Your task to perform on an android device: find which apps use the phone's location Image 0: 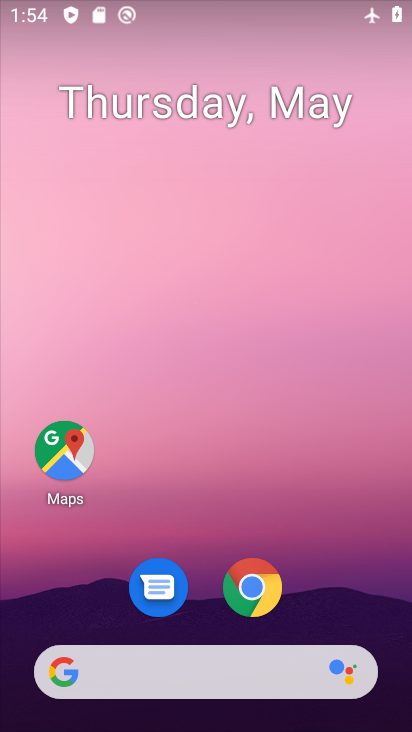
Step 0: drag from (305, 521) to (229, 83)
Your task to perform on an android device: find which apps use the phone's location Image 1: 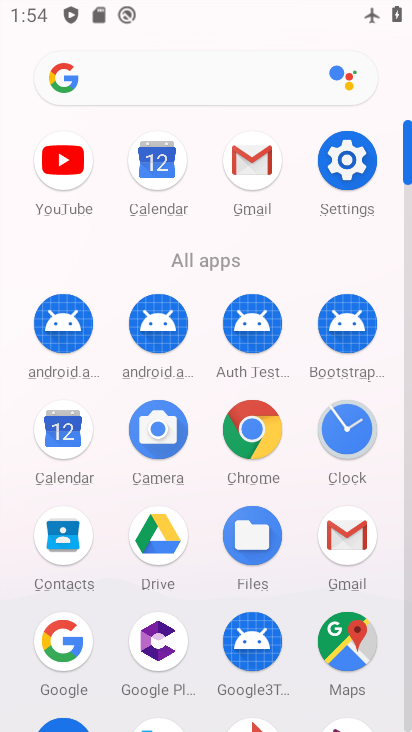
Step 1: click (349, 168)
Your task to perform on an android device: find which apps use the phone's location Image 2: 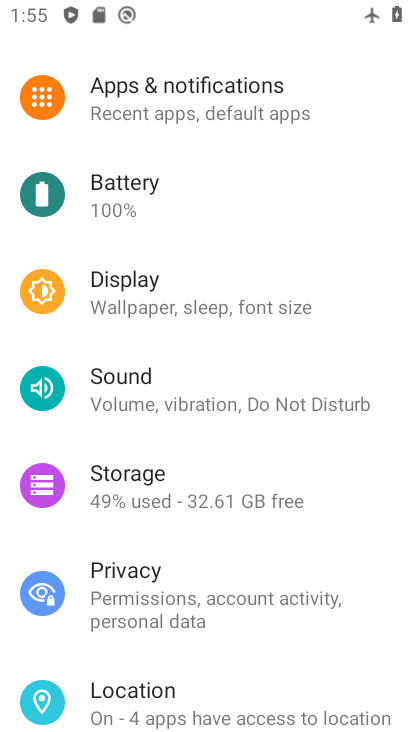
Step 2: click (128, 688)
Your task to perform on an android device: find which apps use the phone's location Image 3: 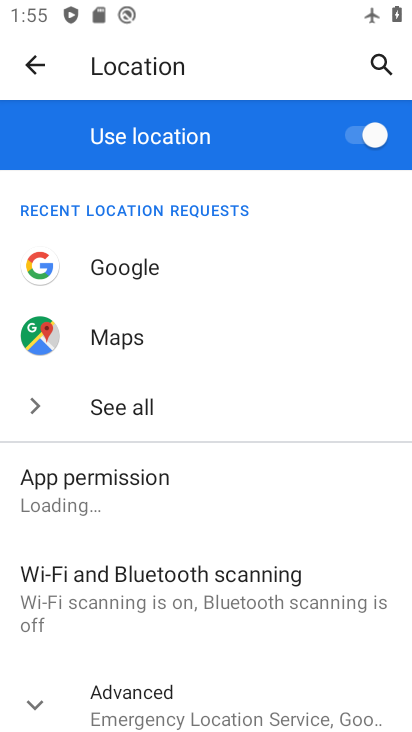
Step 3: click (127, 407)
Your task to perform on an android device: find which apps use the phone's location Image 4: 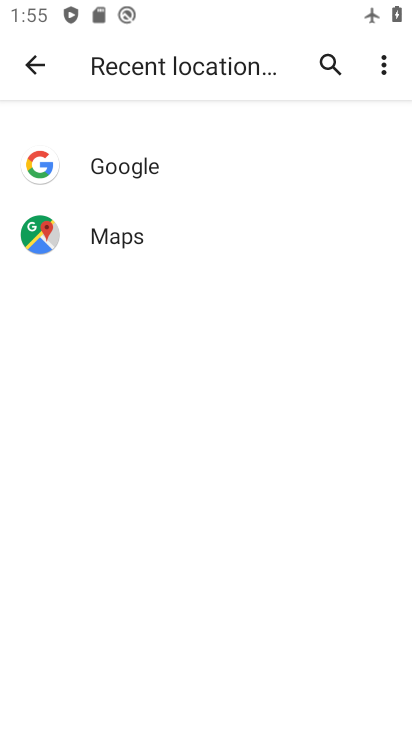
Step 4: task complete